Your task to perform on an android device: Go to network settings Image 0: 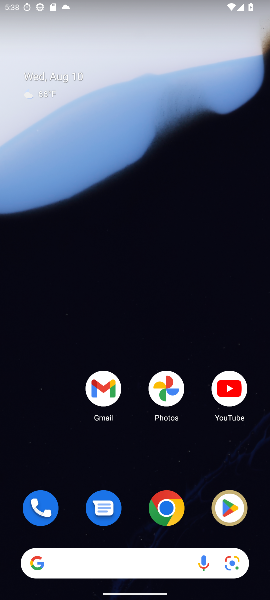
Step 0: press home button
Your task to perform on an android device: Go to network settings Image 1: 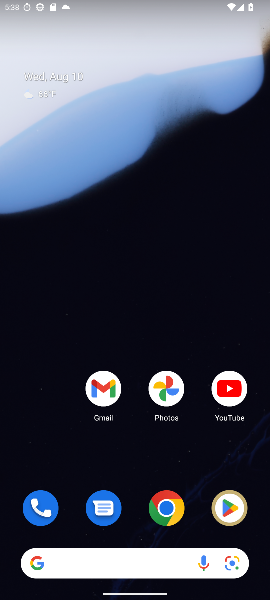
Step 1: drag from (57, 450) to (95, 34)
Your task to perform on an android device: Go to network settings Image 2: 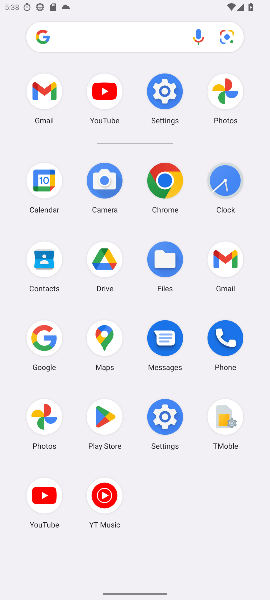
Step 2: click (175, 89)
Your task to perform on an android device: Go to network settings Image 3: 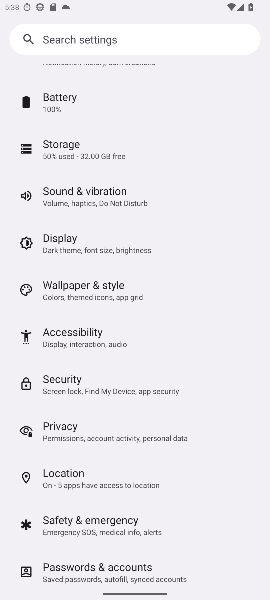
Step 3: drag from (95, 99) to (100, 390)
Your task to perform on an android device: Go to network settings Image 4: 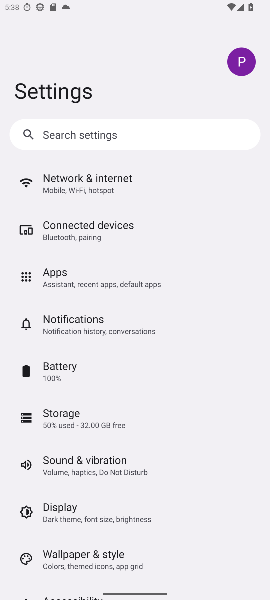
Step 4: click (77, 191)
Your task to perform on an android device: Go to network settings Image 5: 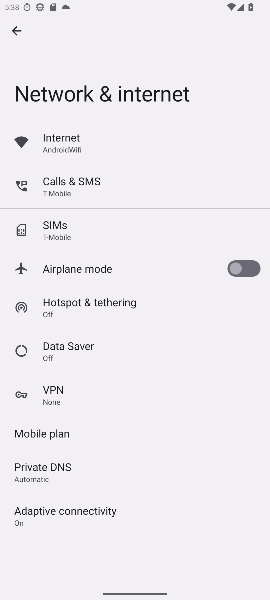
Step 5: click (114, 151)
Your task to perform on an android device: Go to network settings Image 6: 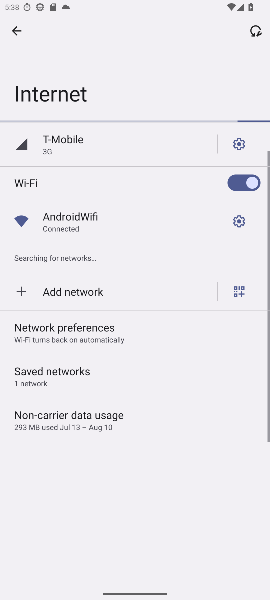
Step 6: task complete